Your task to perform on an android device: Open Youtube and go to the subscriptions tab Image 0: 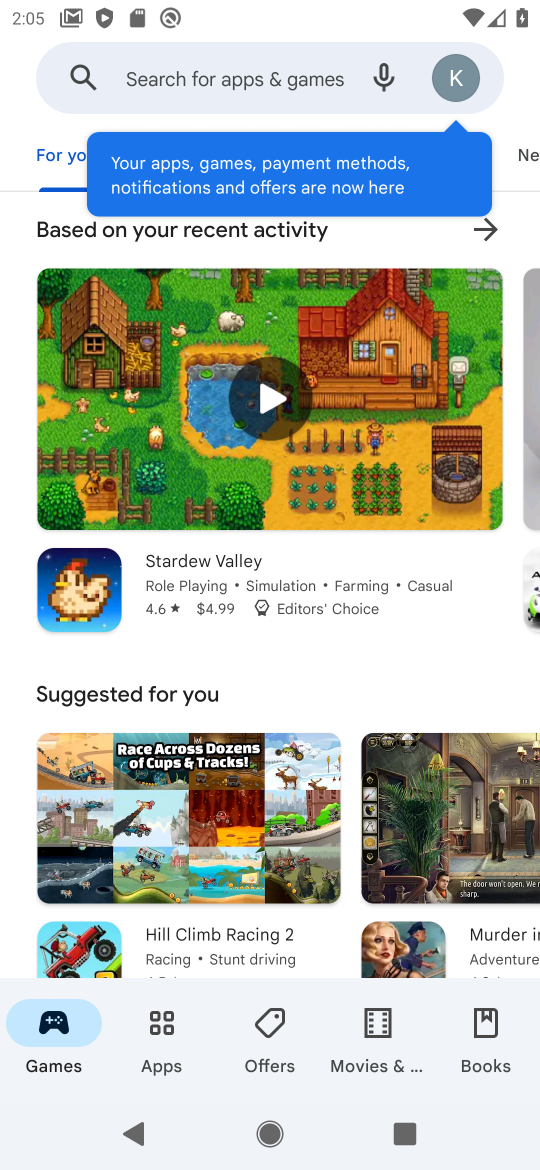
Step 0: press home button
Your task to perform on an android device: Open Youtube and go to the subscriptions tab Image 1: 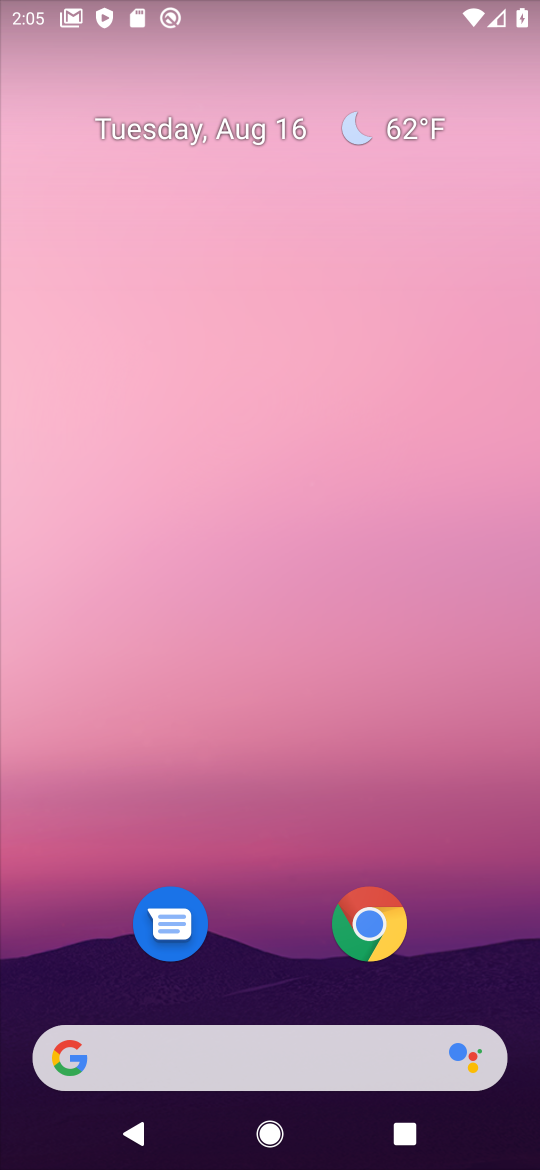
Step 1: drag from (485, 903) to (442, 231)
Your task to perform on an android device: Open Youtube and go to the subscriptions tab Image 2: 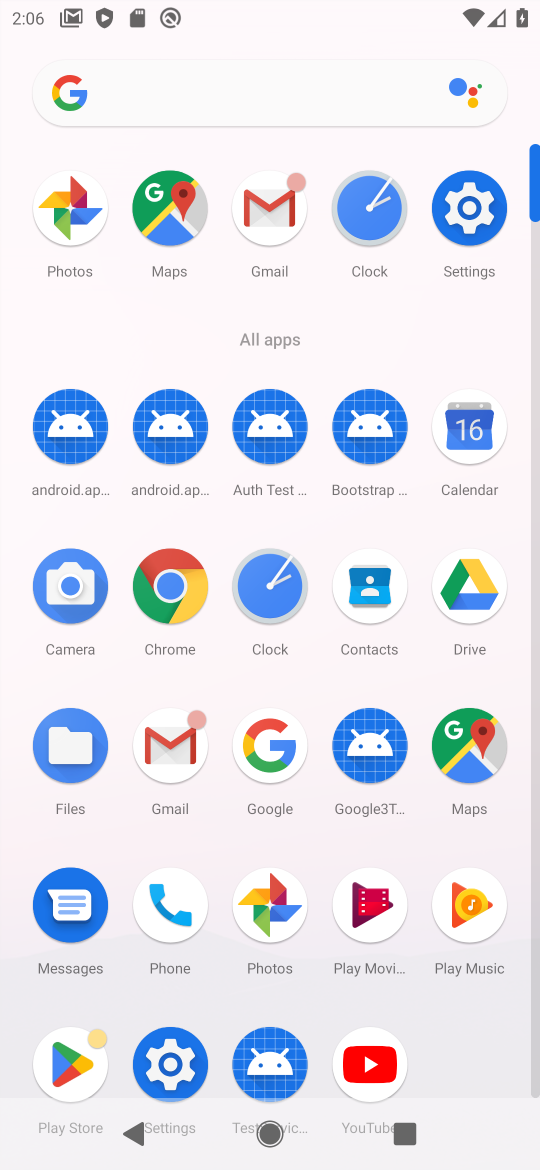
Step 2: click (369, 1069)
Your task to perform on an android device: Open Youtube and go to the subscriptions tab Image 3: 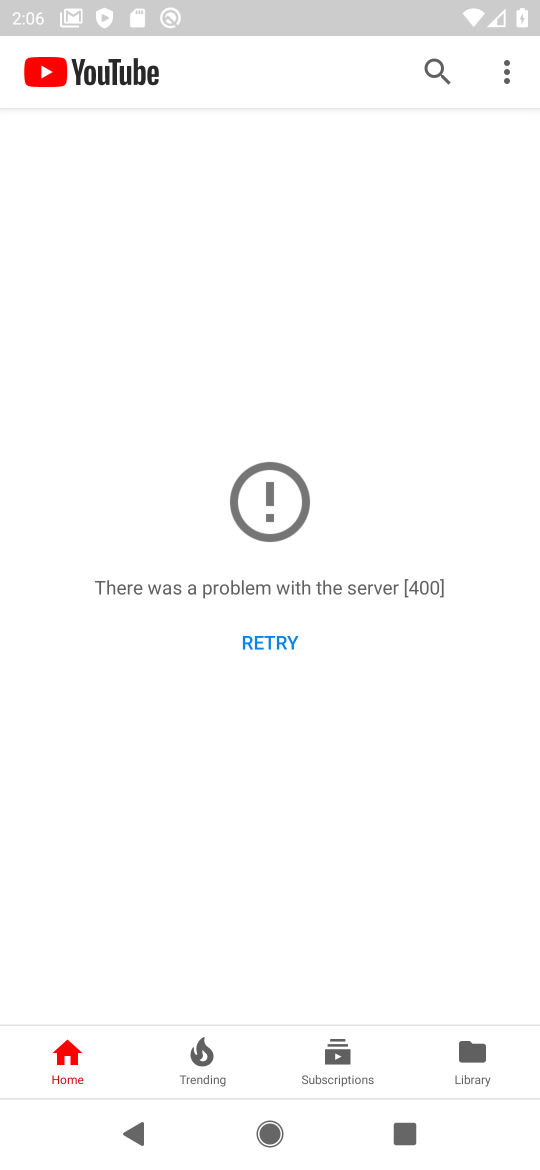
Step 3: click (330, 1057)
Your task to perform on an android device: Open Youtube and go to the subscriptions tab Image 4: 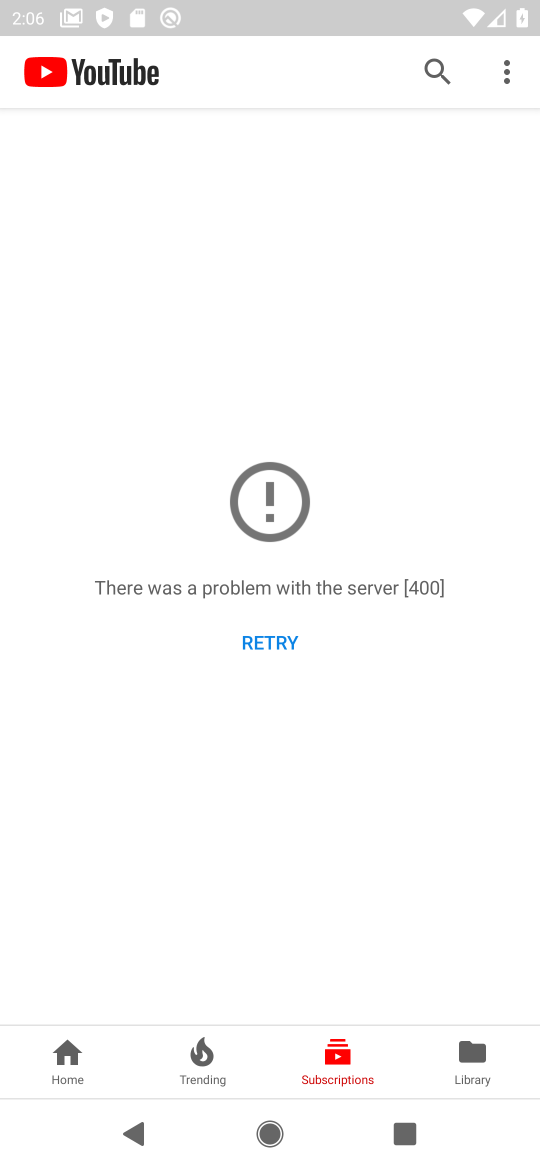
Step 4: task complete